Your task to perform on an android device: toggle pop-ups in chrome Image 0: 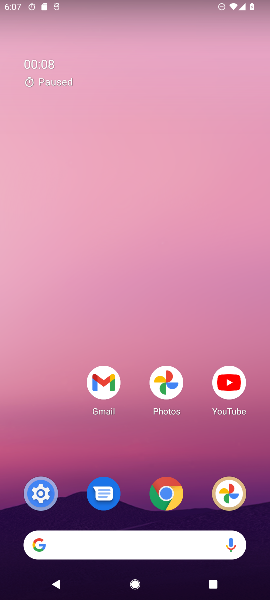
Step 0: press back button
Your task to perform on an android device: toggle pop-ups in chrome Image 1: 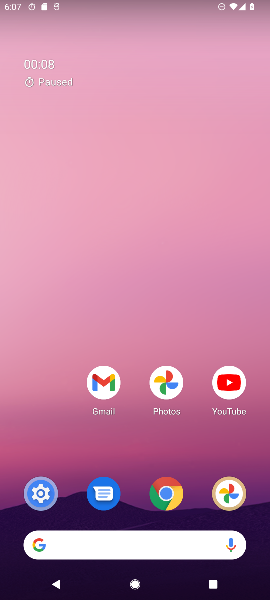
Step 1: drag from (159, 540) to (124, 254)
Your task to perform on an android device: toggle pop-ups in chrome Image 2: 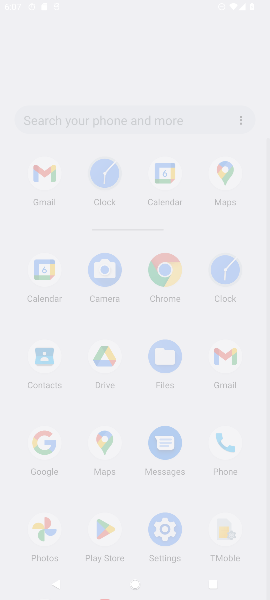
Step 2: drag from (129, 476) to (101, 279)
Your task to perform on an android device: toggle pop-ups in chrome Image 3: 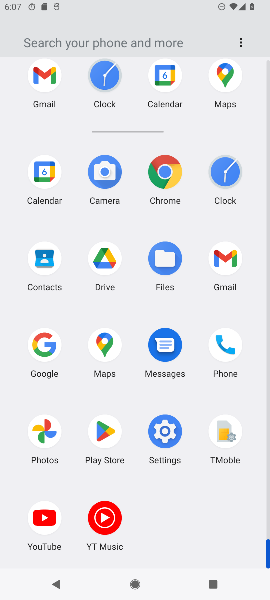
Step 3: click (171, 180)
Your task to perform on an android device: toggle pop-ups in chrome Image 4: 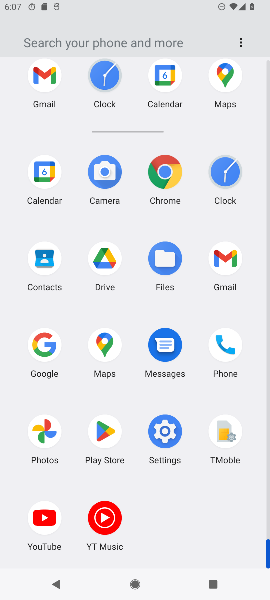
Step 4: click (171, 180)
Your task to perform on an android device: toggle pop-ups in chrome Image 5: 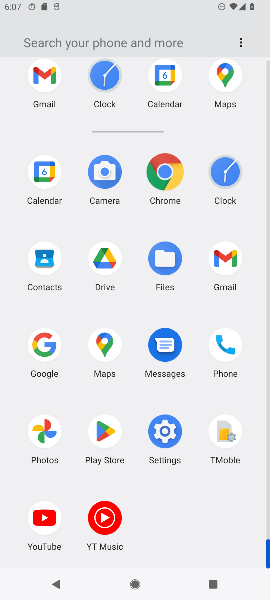
Step 5: click (171, 180)
Your task to perform on an android device: toggle pop-ups in chrome Image 6: 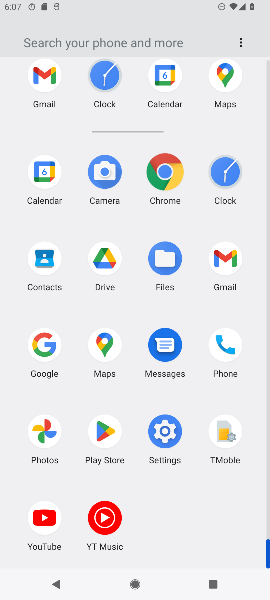
Step 6: click (171, 180)
Your task to perform on an android device: toggle pop-ups in chrome Image 7: 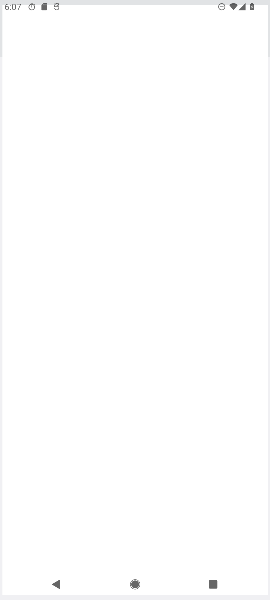
Step 7: click (171, 181)
Your task to perform on an android device: toggle pop-ups in chrome Image 8: 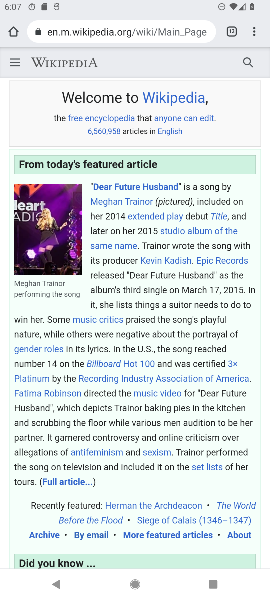
Step 8: drag from (249, 32) to (159, 414)
Your task to perform on an android device: toggle pop-ups in chrome Image 9: 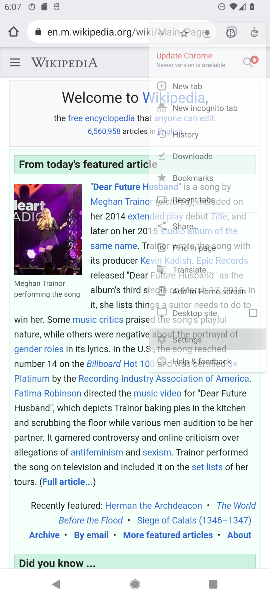
Step 9: click (179, 413)
Your task to perform on an android device: toggle pop-ups in chrome Image 10: 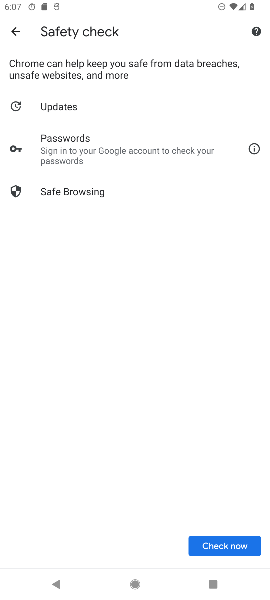
Step 10: click (15, 29)
Your task to perform on an android device: toggle pop-ups in chrome Image 11: 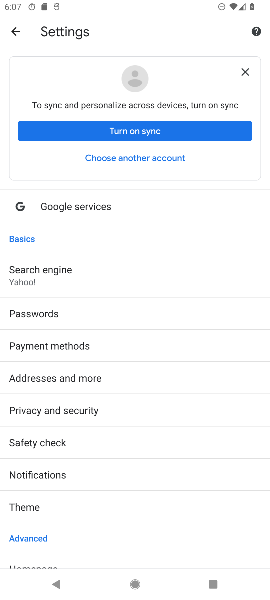
Step 11: drag from (161, 433) to (144, 247)
Your task to perform on an android device: toggle pop-ups in chrome Image 12: 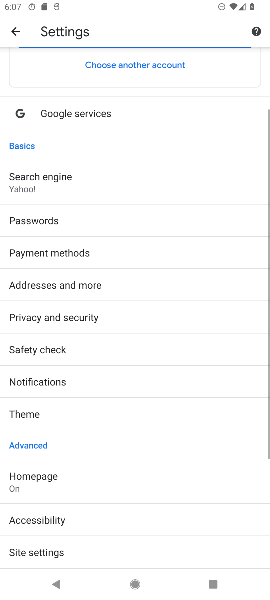
Step 12: drag from (143, 480) to (139, 224)
Your task to perform on an android device: toggle pop-ups in chrome Image 13: 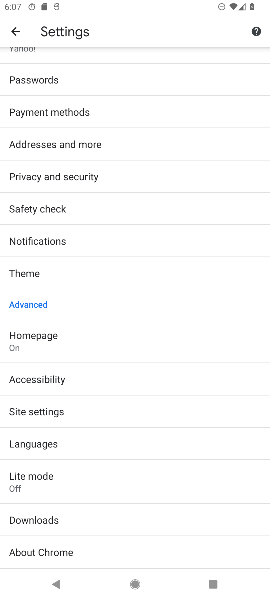
Step 13: click (35, 416)
Your task to perform on an android device: toggle pop-ups in chrome Image 14: 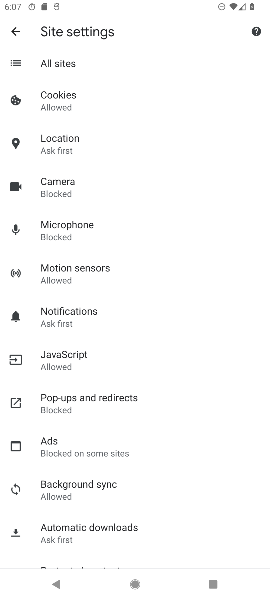
Step 14: click (56, 396)
Your task to perform on an android device: toggle pop-ups in chrome Image 15: 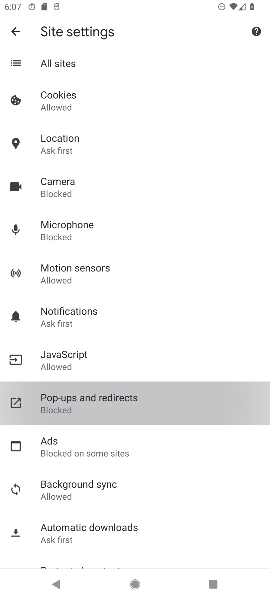
Step 15: click (61, 394)
Your task to perform on an android device: toggle pop-ups in chrome Image 16: 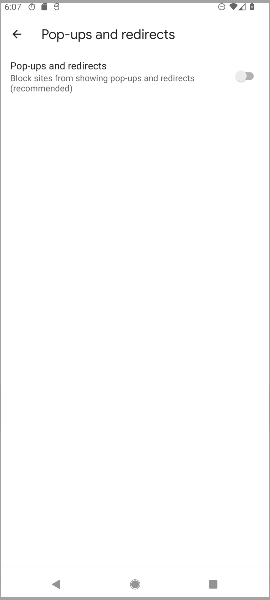
Step 16: click (61, 394)
Your task to perform on an android device: toggle pop-ups in chrome Image 17: 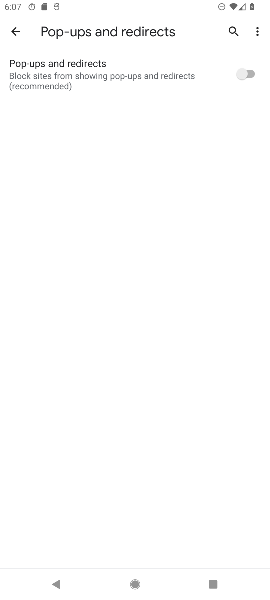
Step 17: click (242, 71)
Your task to perform on an android device: toggle pop-ups in chrome Image 18: 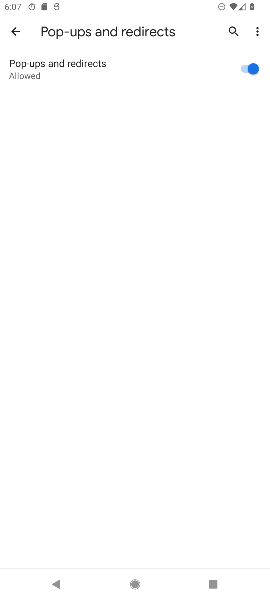
Step 18: task complete